Your task to perform on an android device: Go to internet settings Image 0: 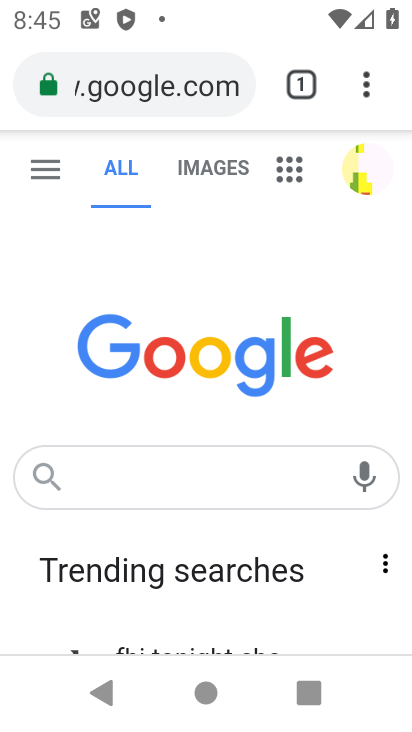
Step 0: press home button
Your task to perform on an android device: Go to internet settings Image 1: 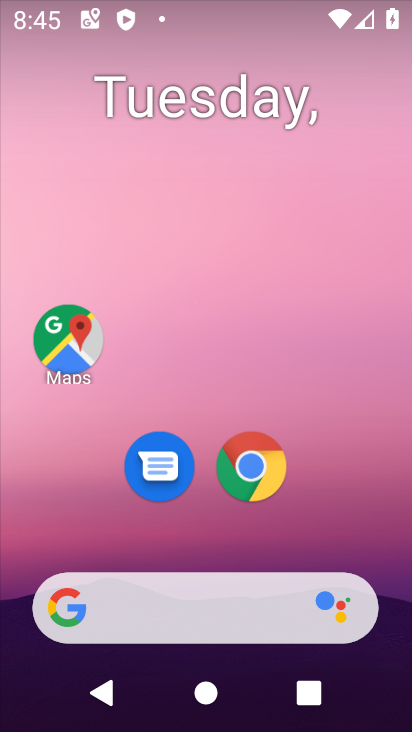
Step 1: drag from (330, 484) to (191, 3)
Your task to perform on an android device: Go to internet settings Image 2: 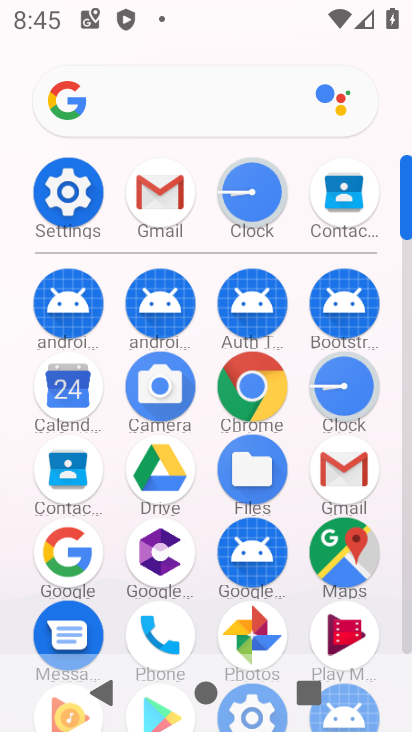
Step 2: click (65, 216)
Your task to perform on an android device: Go to internet settings Image 3: 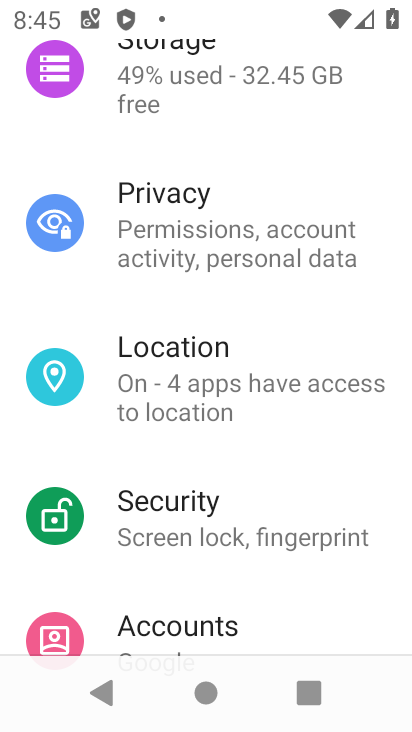
Step 3: drag from (251, 220) to (195, 497)
Your task to perform on an android device: Go to internet settings Image 4: 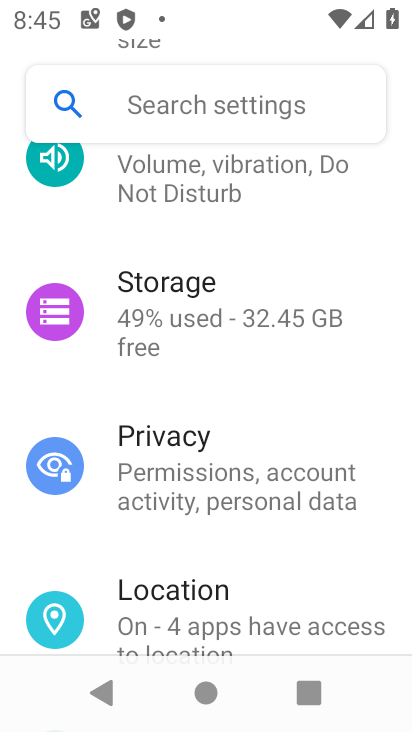
Step 4: drag from (160, 260) to (174, 393)
Your task to perform on an android device: Go to internet settings Image 5: 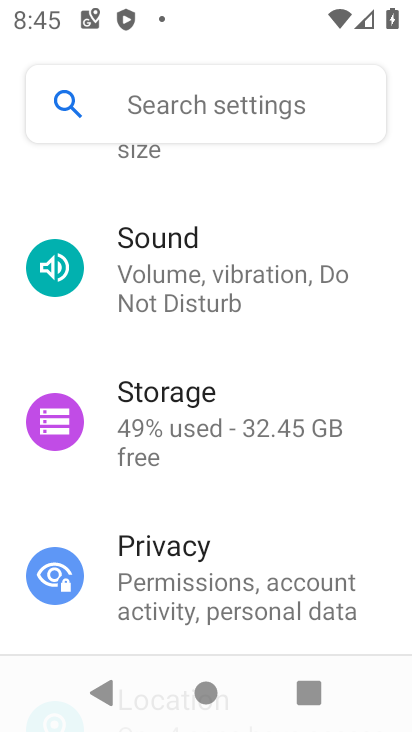
Step 5: drag from (157, 287) to (161, 565)
Your task to perform on an android device: Go to internet settings Image 6: 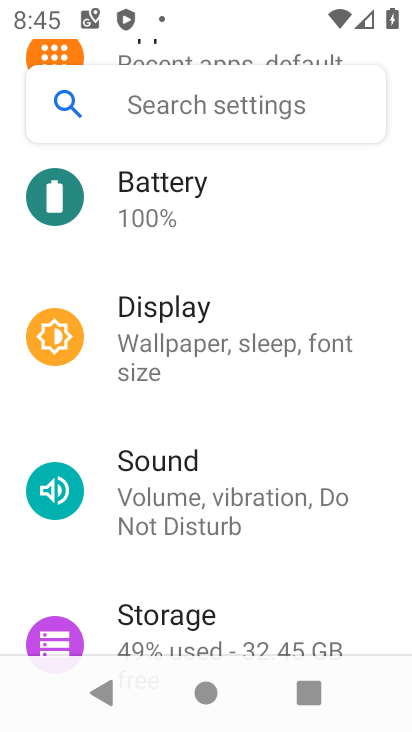
Step 6: drag from (219, 232) to (238, 489)
Your task to perform on an android device: Go to internet settings Image 7: 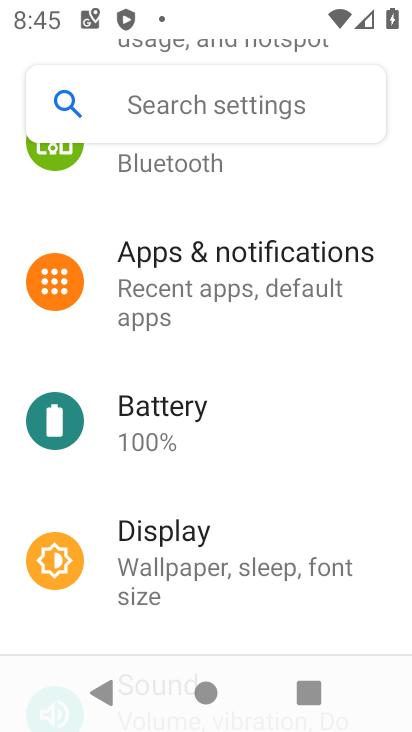
Step 7: drag from (239, 266) to (189, 717)
Your task to perform on an android device: Go to internet settings Image 8: 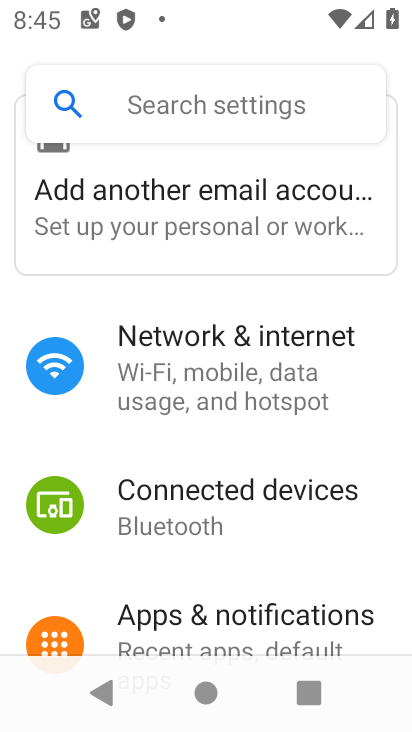
Step 8: click (147, 381)
Your task to perform on an android device: Go to internet settings Image 9: 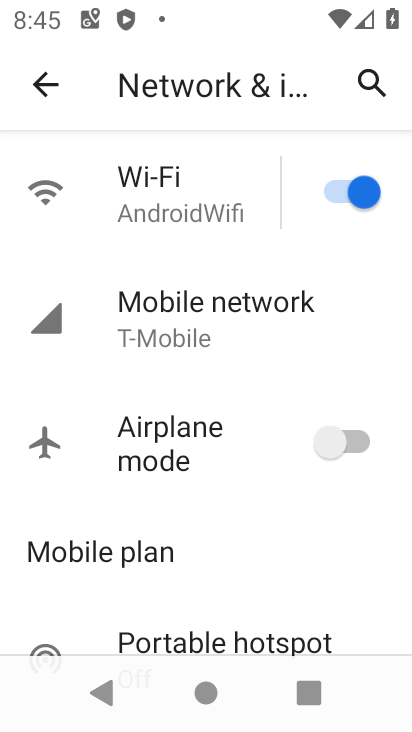
Step 9: task complete